Your task to perform on an android device: turn on translation in the chrome app Image 0: 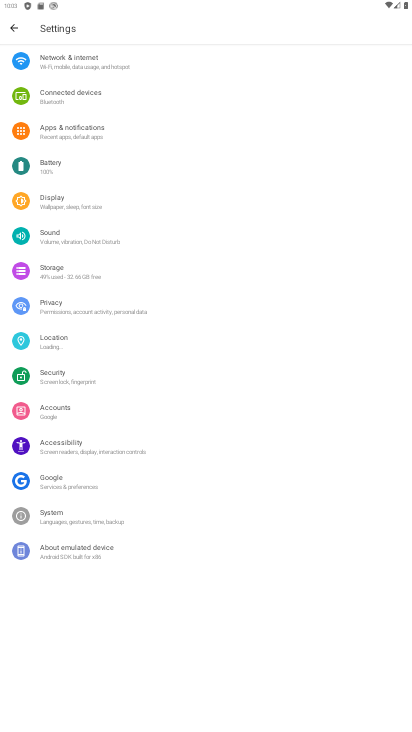
Step 0: press home button
Your task to perform on an android device: turn on translation in the chrome app Image 1: 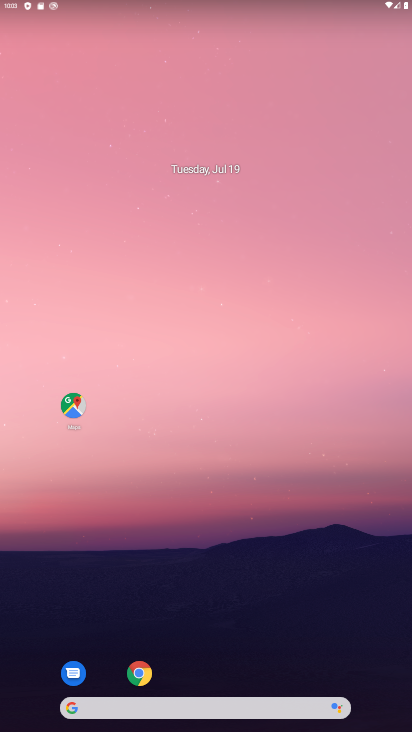
Step 1: drag from (354, 608) to (342, 56)
Your task to perform on an android device: turn on translation in the chrome app Image 2: 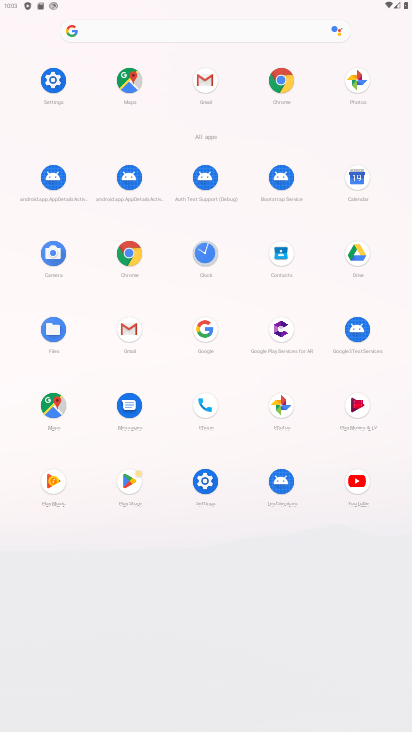
Step 2: click (198, 487)
Your task to perform on an android device: turn on translation in the chrome app Image 3: 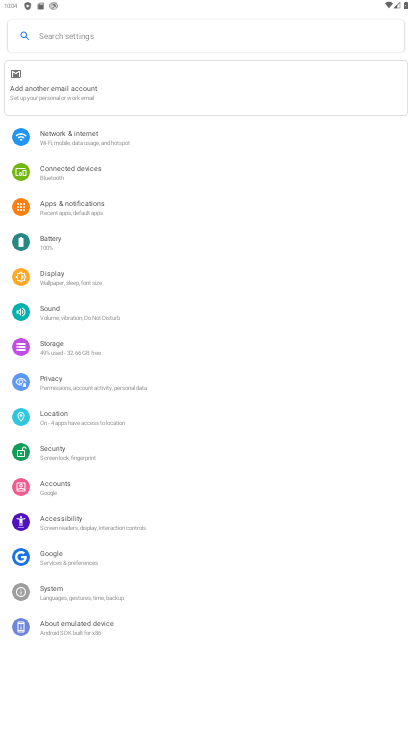
Step 3: click (89, 277)
Your task to perform on an android device: turn on translation in the chrome app Image 4: 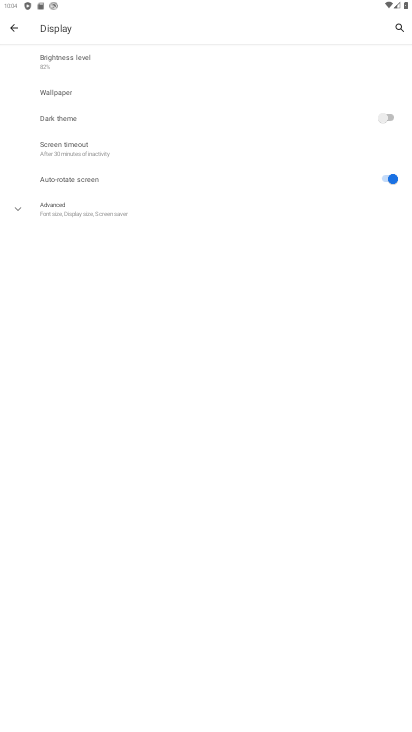
Step 4: click (119, 206)
Your task to perform on an android device: turn on translation in the chrome app Image 5: 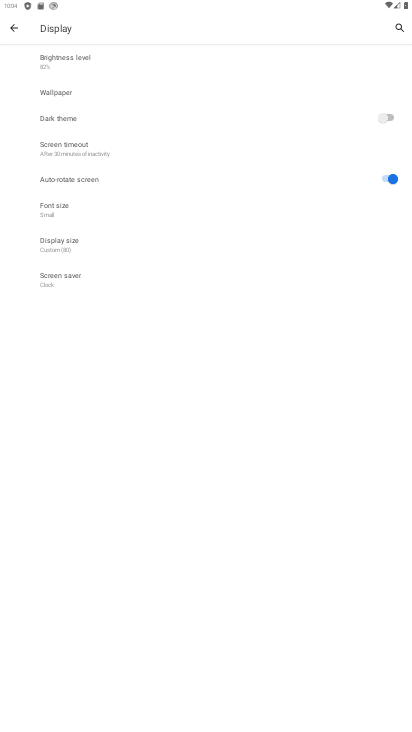
Step 5: click (88, 245)
Your task to perform on an android device: turn on translation in the chrome app Image 6: 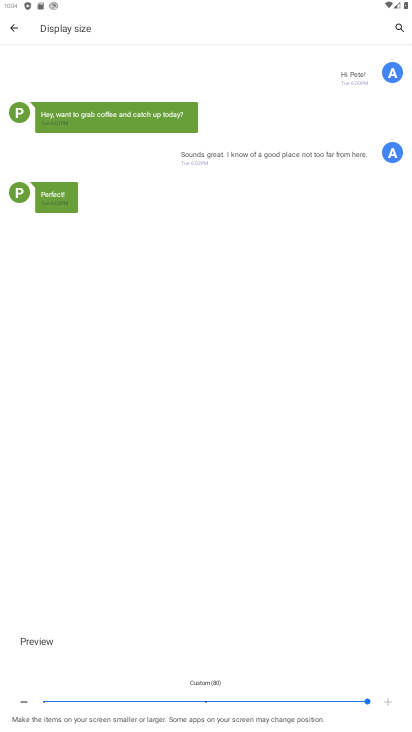
Step 6: click (214, 702)
Your task to perform on an android device: turn on translation in the chrome app Image 7: 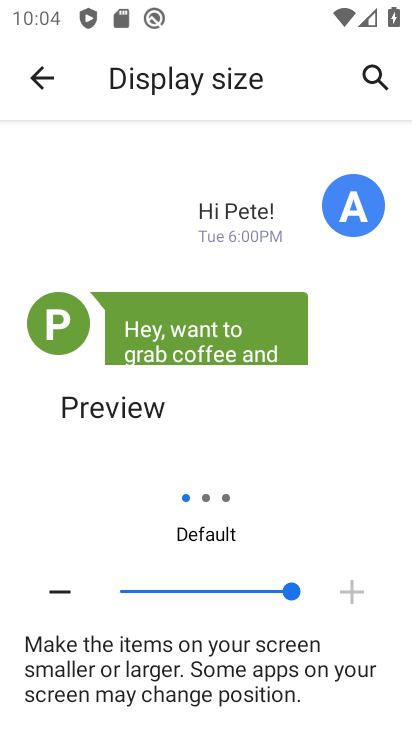
Step 7: click (45, 75)
Your task to perform on an android device: turn on translation in the chrome app Image 8: 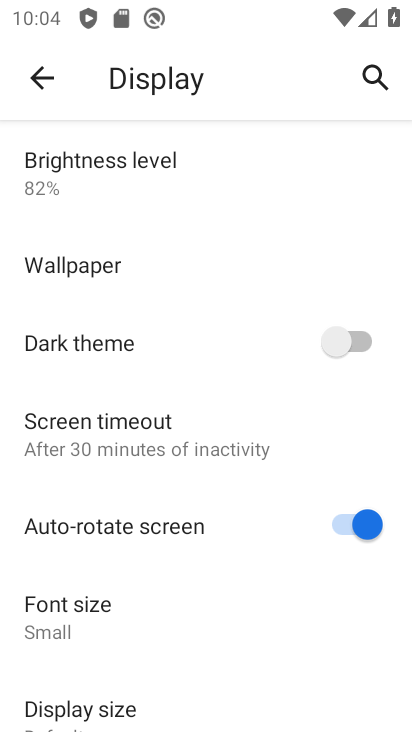
Step 8: click (46, 74)
Your task to perform on an android device: turn on translation in the chrome app Image 9: 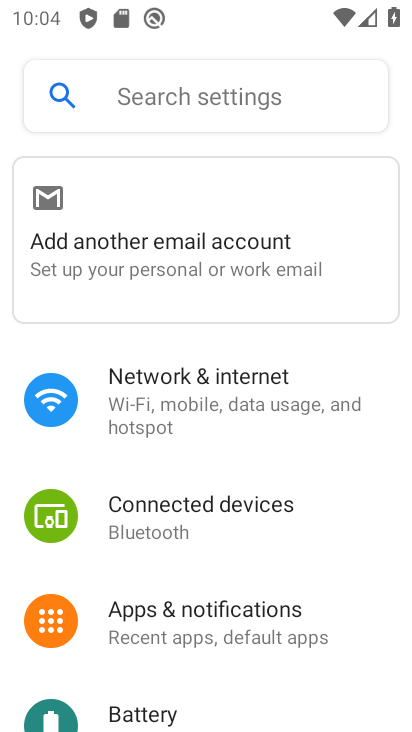
Step 9: drag from (363, 612) to (357, 307)
Your task to perform on an android device: turn on translation in the chrome app Image 10: 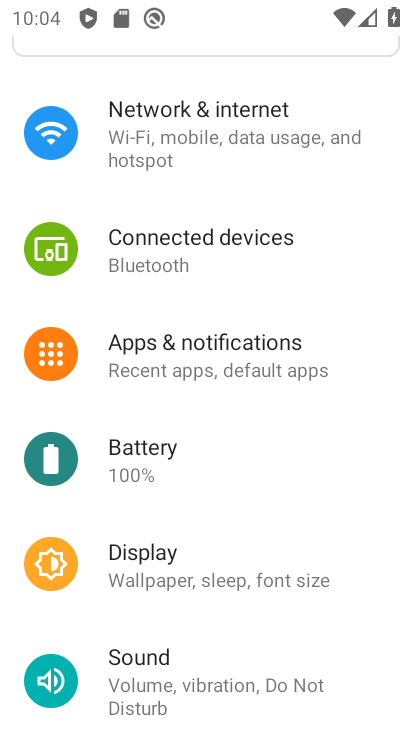
Step 10: click (293, 551)
Your task to perform on an android device: turn on translation in the chrome app Image 11: 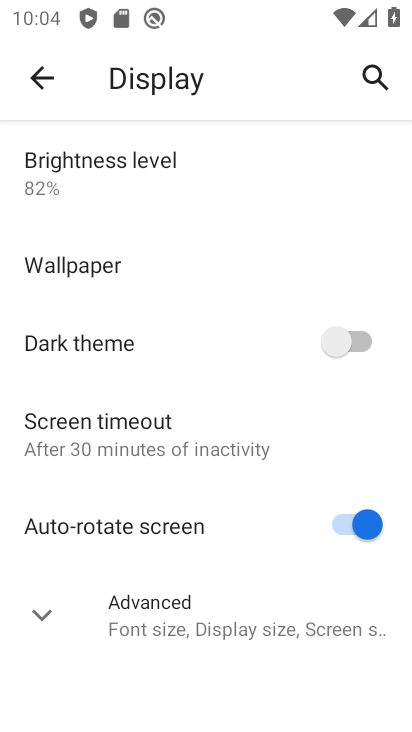
Step 11: click (179, 622)
Your task to perform on an android device: turn on translation in the chrome app Image 12: 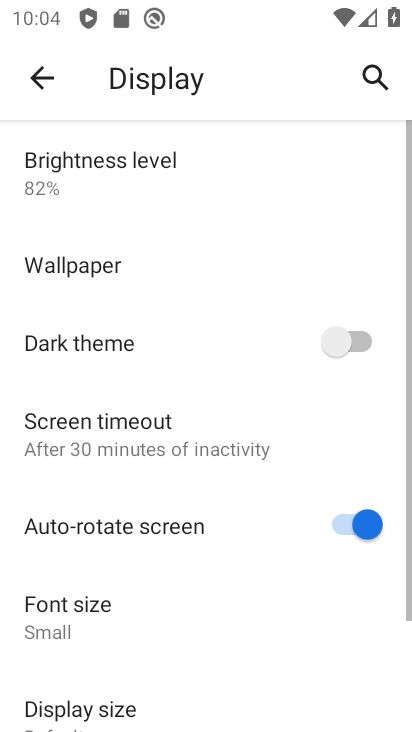
Step 12: click (182, 630)
Your task to perform on an android device: turn on translation in the chrome app Image 13: 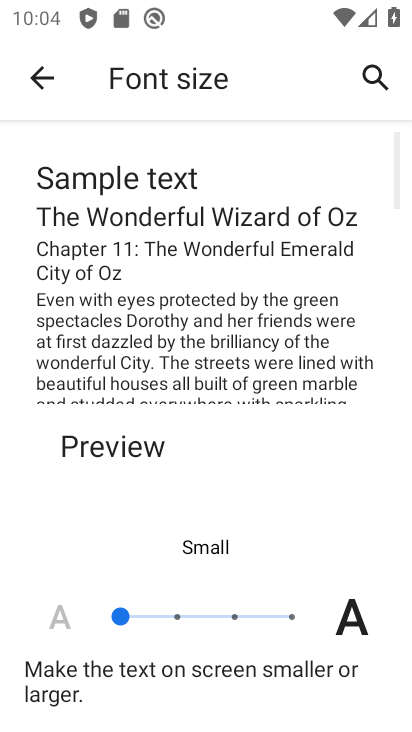
Step 13: click (292, 625)
Your task to perform on an android device: turn on translation in the chrome app Image 14: 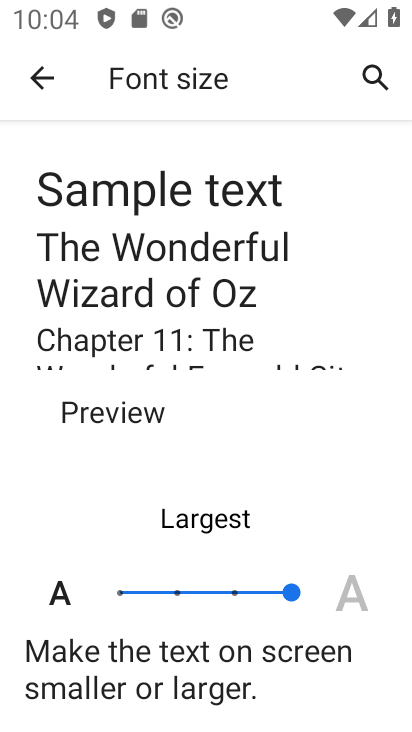
Step 14: press home button
Your task to perform on an android device: turn on translation in the chrome app Image 15: 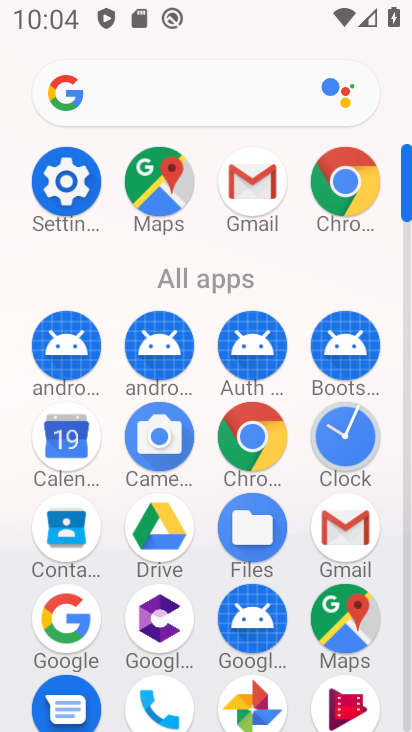
Step 15: click (269, 448)
Your task to perform on an android device: turn on translation in the chrome app Image 16: 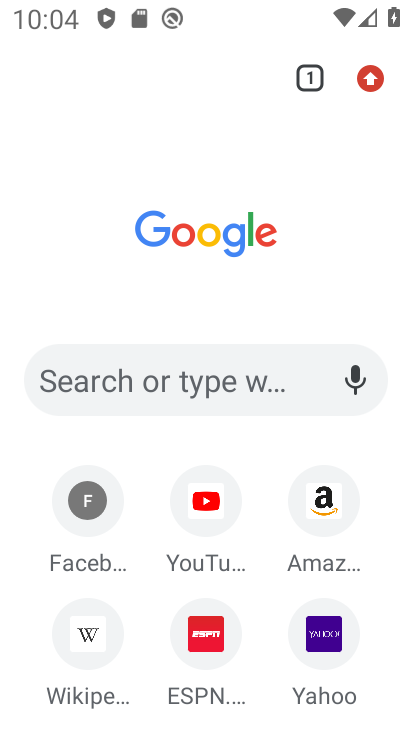
Step 16: click (370, 79)
Your task to perform on an android device: turn on translation in the chrome app Image 17: 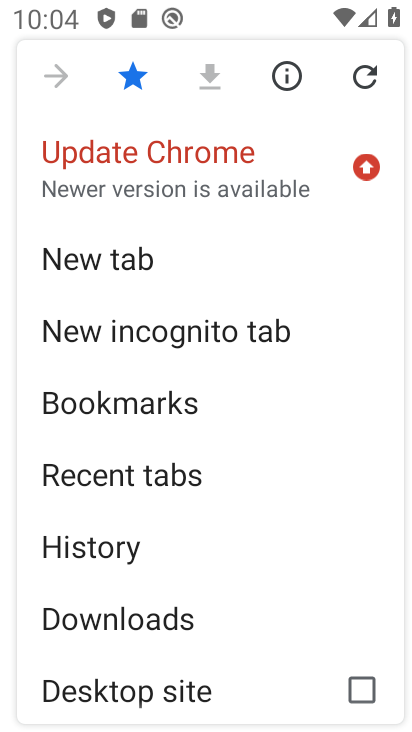
Step 17: drag from (293, 450) to (307, 358)
Your task to perform on an android device: turn on translation in the chrome app Image 18: 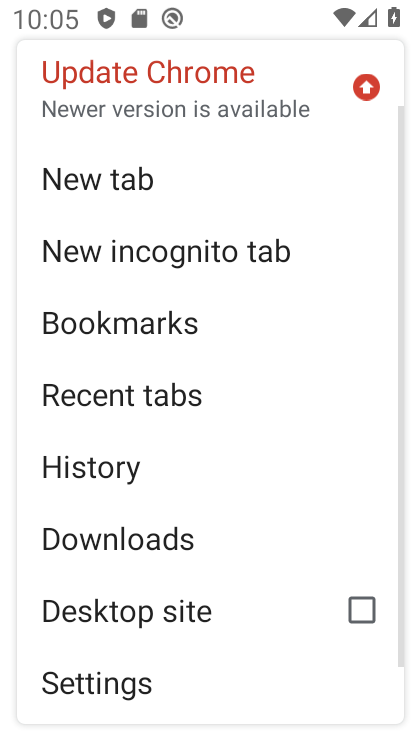
Step 18: drag from (277, 497) to (278, 403)
Your task to perform on an android device: turn on translation in the chrome app Image 19: 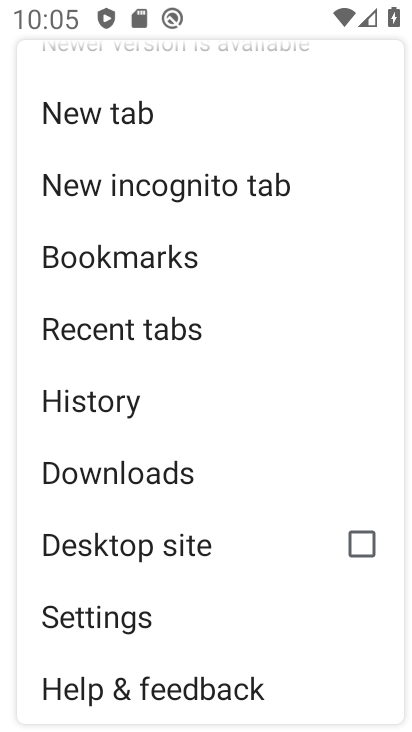
Step 19: drag from (257, 560) to (256, 412)
Your task to perform on an android device: turn on translation in the chrome app Image 20: 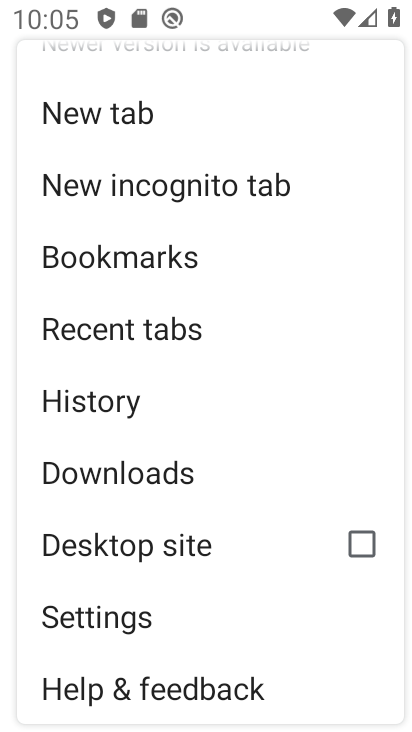
Step 20: click (163, 614)
Your task to perform on an android device: turn on translation in the chrome app Image 21: 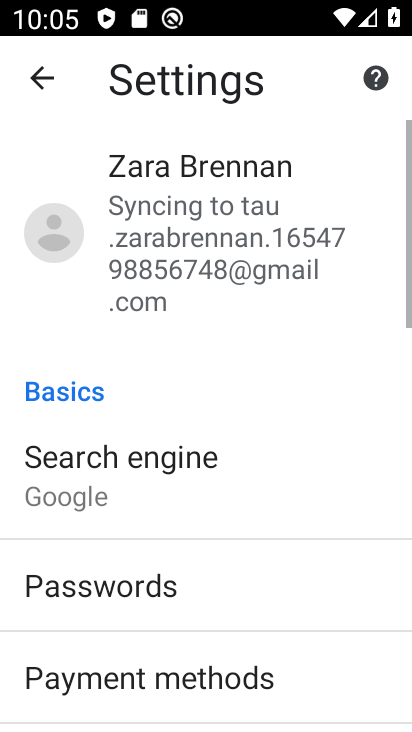
Step 21: drag from (259, 566) to (260, 470)
Your task to perform on an android device: turn on translation in the chrome app Image 22: 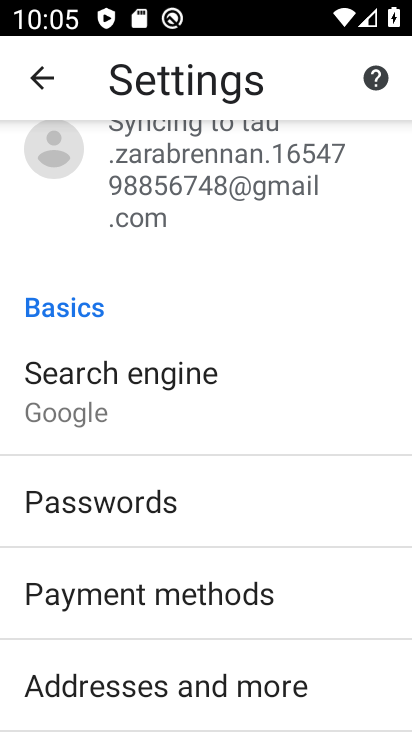
Step 22: drag from (308, 597) to (303, 473)
Your task to perform on an android device: turn on translation in the chrome app Image 23: 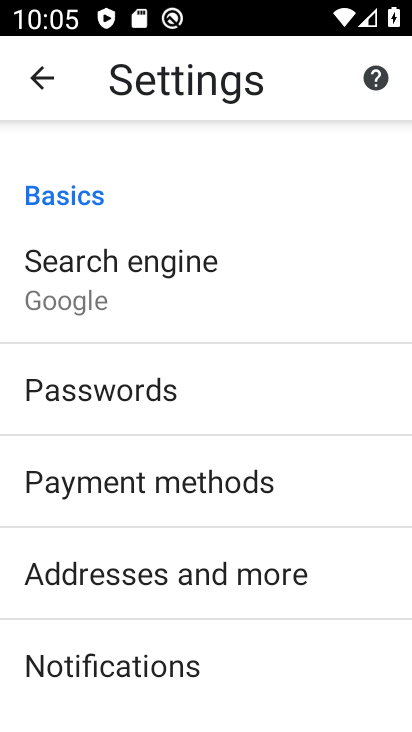
Step 23: drag from (310, 621) to (319, 472)
Your task to perform on an android device: turn on translation in the chrome app Image 24: 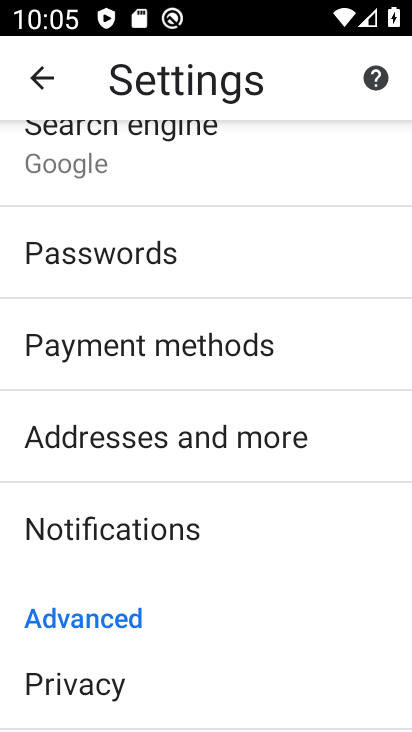
Step 24: drag from (300, 586) to (299, 444)
Your task to perform on an android device: turn on translation in the chrome app Image 25: 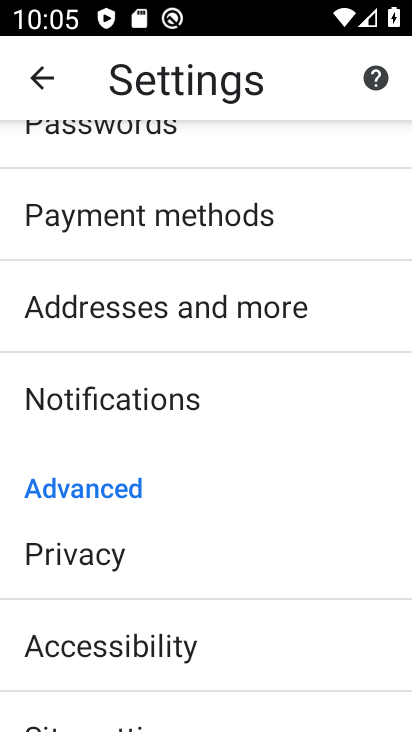
Step 25: drag from (296, 626) to (299, 434)
Your task to perform on an android device: turn on translation in the chrome app Image 26: 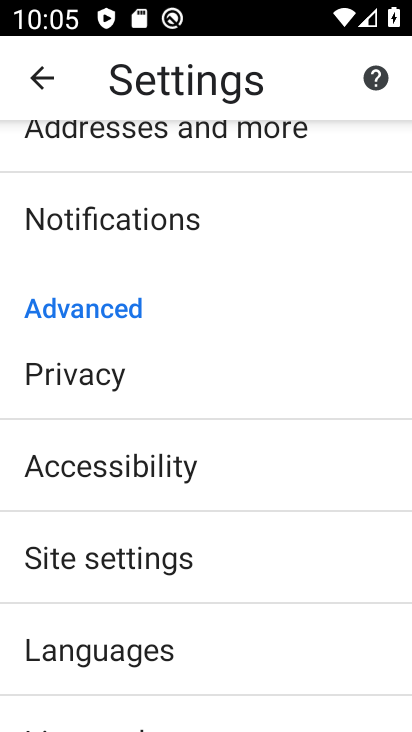
Step 26: click (295, 638)
Your task to perform on an android device: turn on translation in the chrome app Image 27: 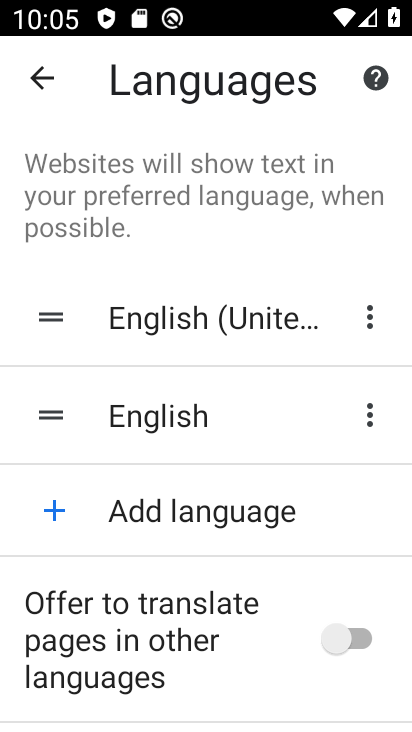
Step 27: click (329, 639)
Your task to perform on an android device: turn on translation in the chrome app Image 28: 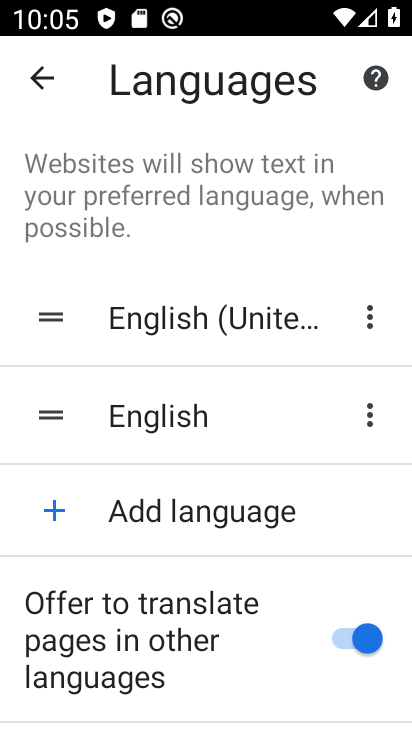
Step 28: task complete